Your task to perform on an android device: Go to Reddit.com Image 0: 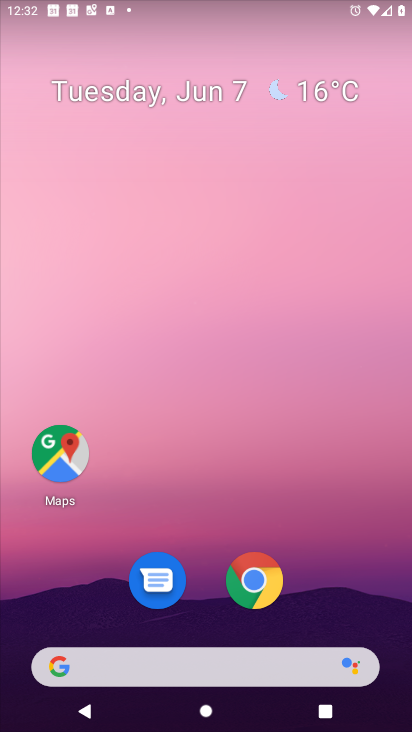
Step 0: drag from (319, 622) to (284, 0)
Your task to perform on an android device: Go to Reddit.com Image 1: 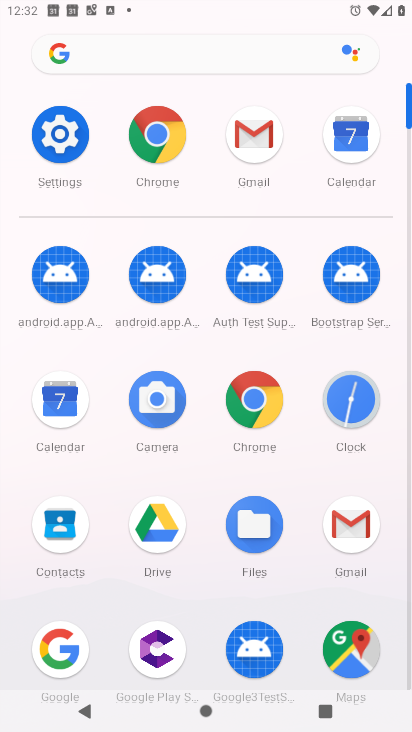
Step 1: click (165, 135)
Your task to perform on an android device: Go to Reddit.com Image 2: 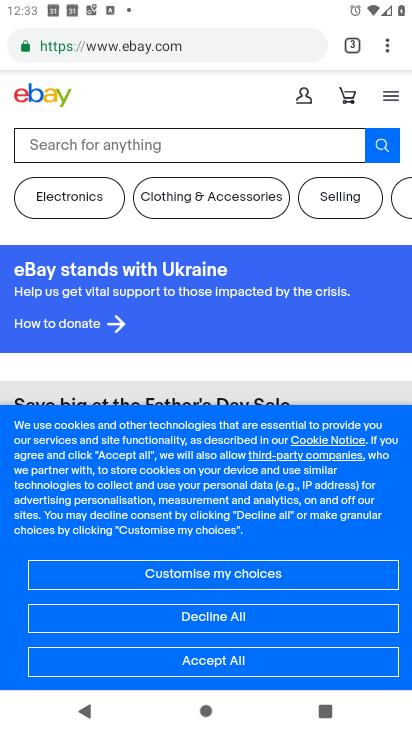
Step 2: click (211, 47)
Your task to perform on an android device: Go to Reddit.com Image 3: 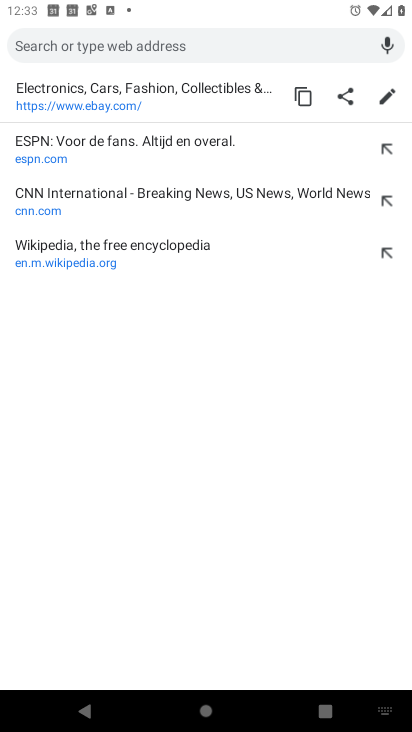
Step 3: type "reddit"
Your task to perform on an android device: Go to Reddit.com Image 4: 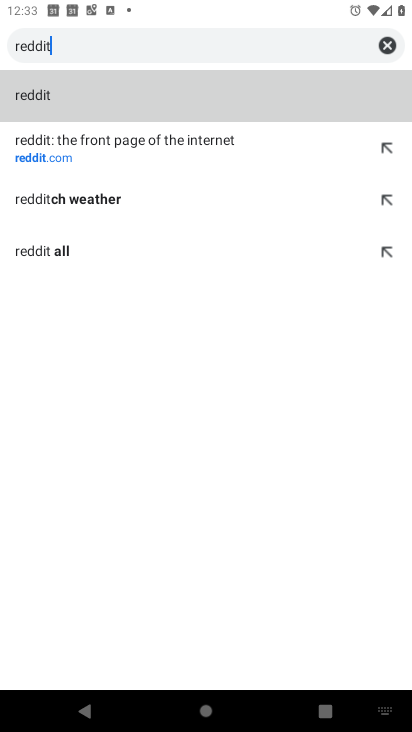
Step 4: click (68, 166)
Your task to perform on an android device: Go to Reddit.com Image 5: 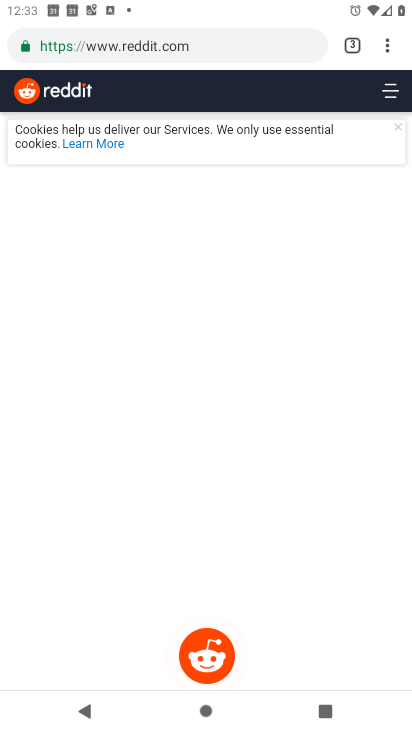
Step 5: task complete